Your task to perform on an android device: Go to Wikipedia Image 0: 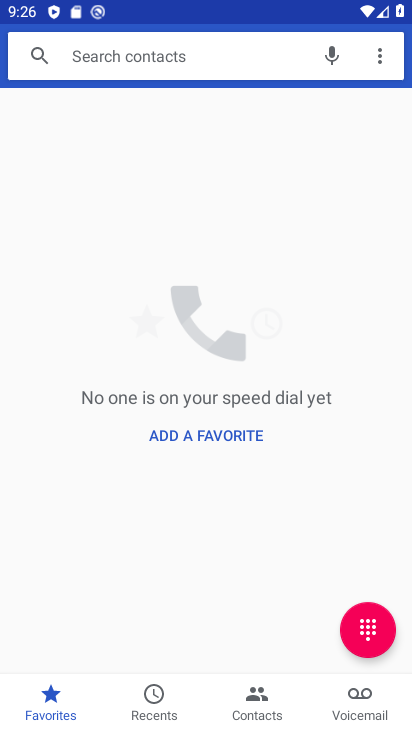
Step 0: press home button
Your task to perform on an android device: Go to Wikipedia Image 1: 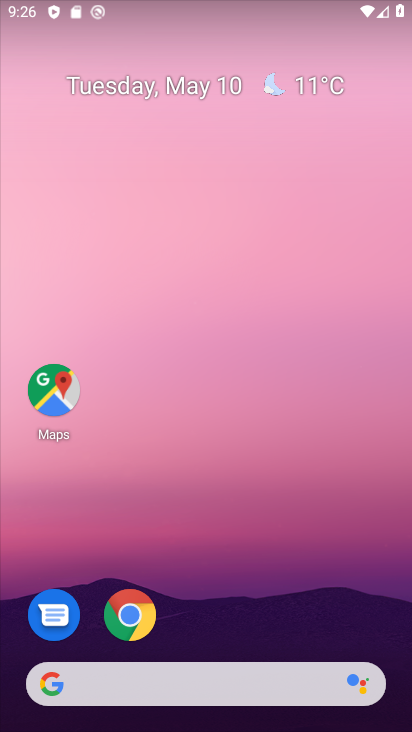
Step 1: click (131, 605)
Your task to perform on an android device: Go to Wikipedia Image 2: 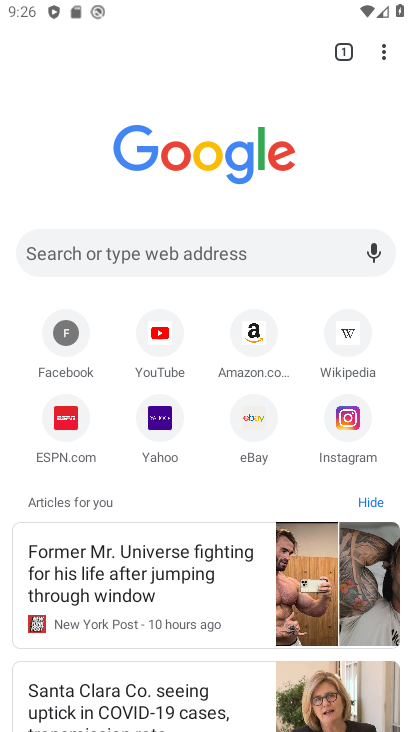
Step 2: click (347, 338)
Your task to perform on an android device: Go to Wikipedia Image 3: 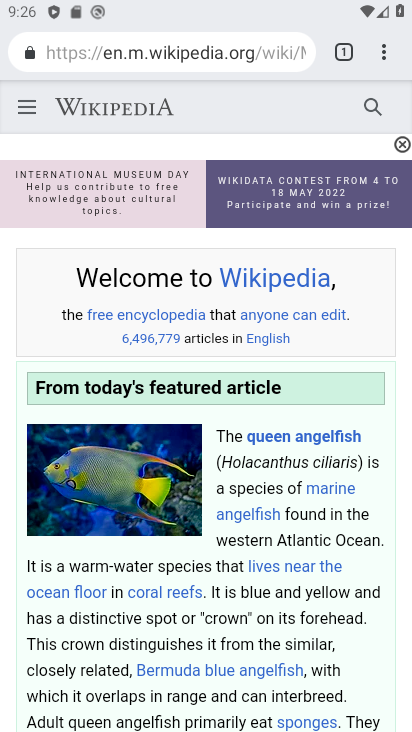
Step 3: task complete